Your task to perform on an android device: What's the weather going to be this weekend? Image 0: 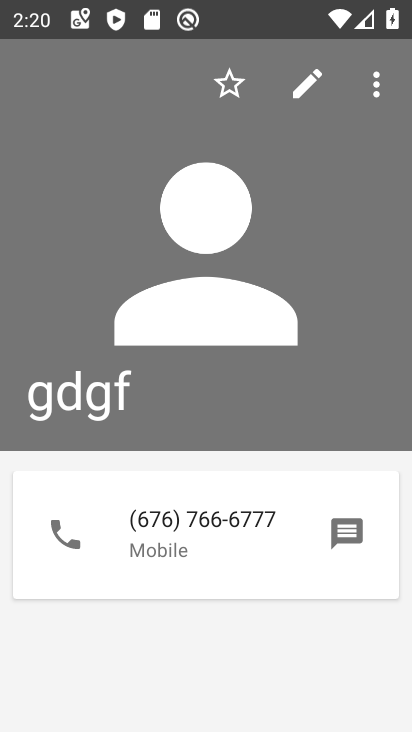
Step 0: press home button
Your task to perform on an android device: What's the weather going to be this weekend? Image 1: 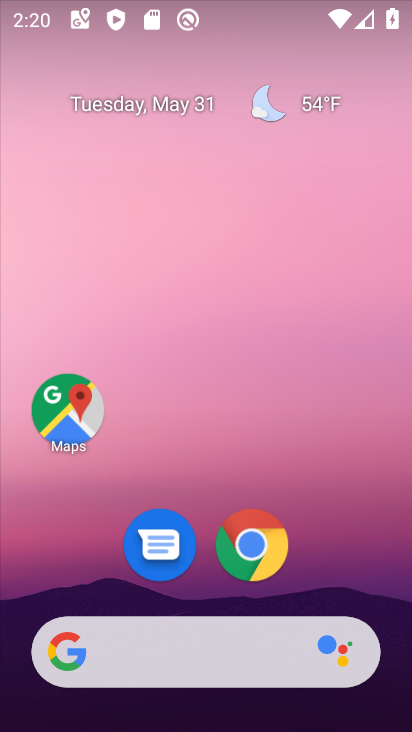
Step 1: drag from (17, 175) to (375, 220)
Your task to perform on an android device: What's the weather going to be this weekend? Image 2: 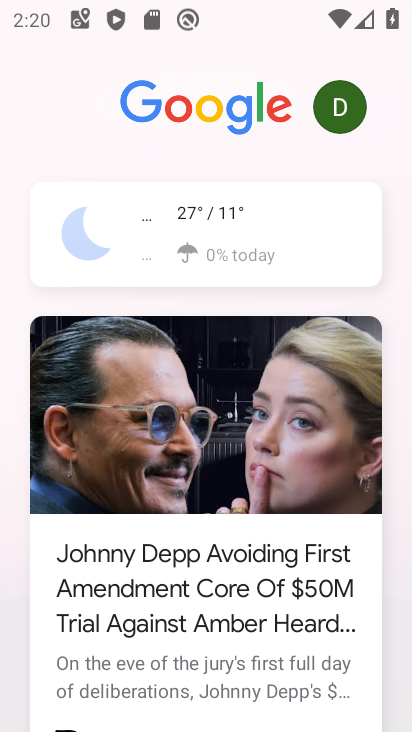
Step 2: click (210, 243)
Your task to perform on an android device: What's the weather going to be this weekend? Image 3: 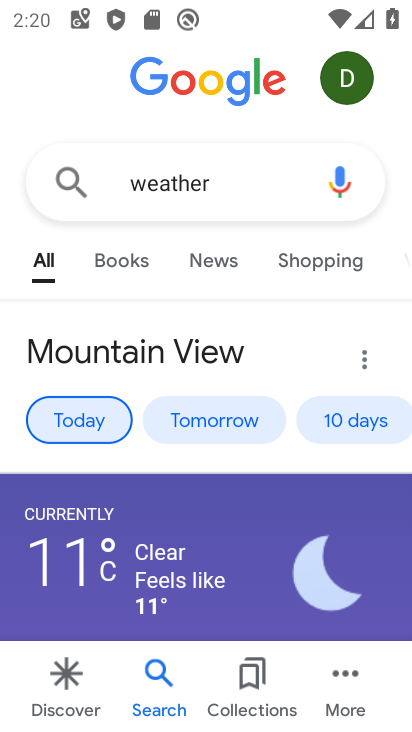
Step 3: click (366, 426)
Your task to perform on an android device: What's the weather going to be this weekend? Image 4: 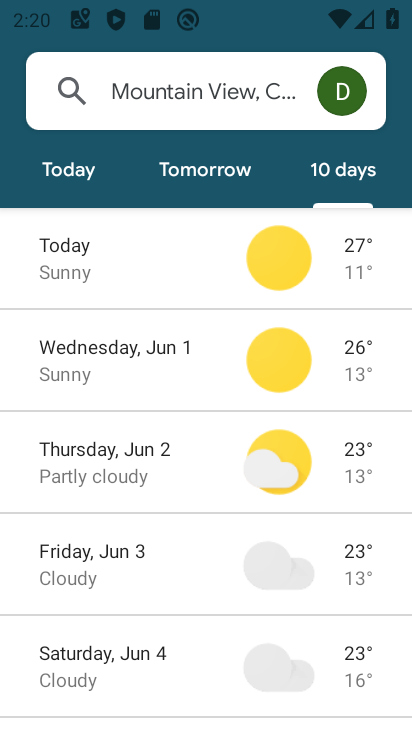
Step 4: task complete